Your task to perform on an android device: What's on my calendar tomorrow? Image 0: 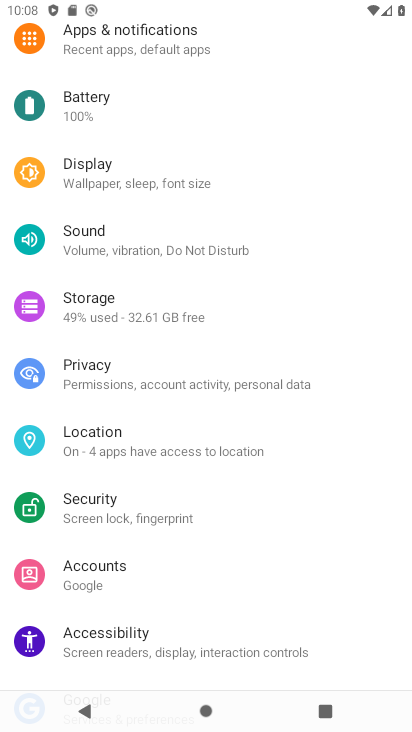
Step 0: press home button
Your task to perform on an android device: What's on my calendar tomorrow? Image 1: 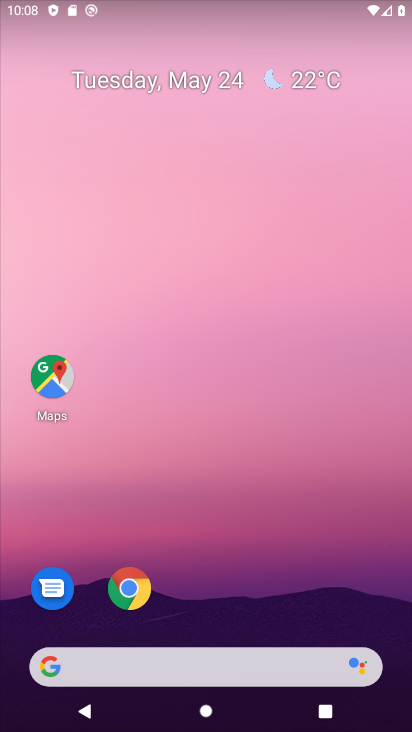
Step 1: click (184, 81)
Your task to perform on an android device: What's on my calendar tomorrow? Image 2: 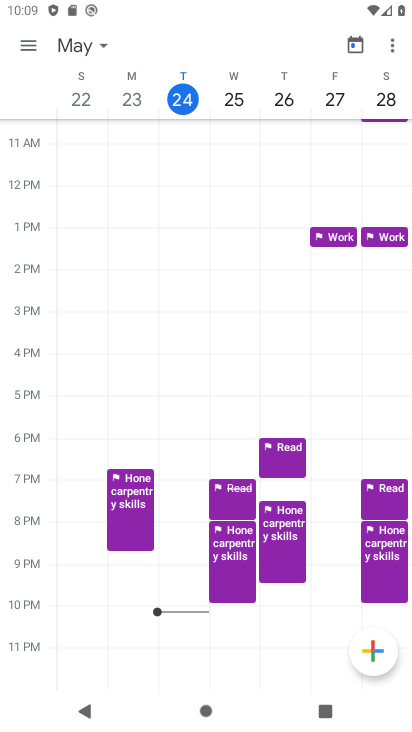
Step 2: click (240, 83)
Your task to perform on an android device: What's on my calendar tomorrow? Image 3: 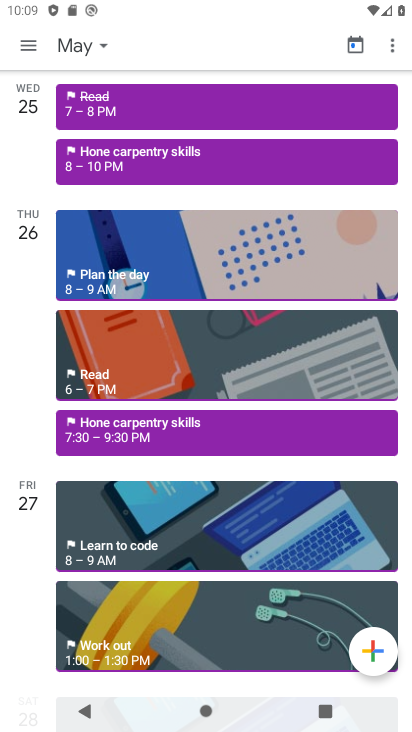
Step 3: task complete